Your task to perform on an android device: Go to CNN.com Image 0: 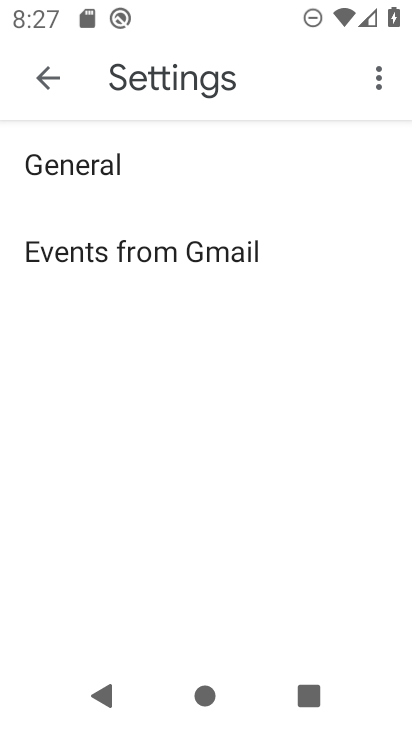
Step 0: press home button
Your task to perform on an android device: Go to CNN.com Image 1: 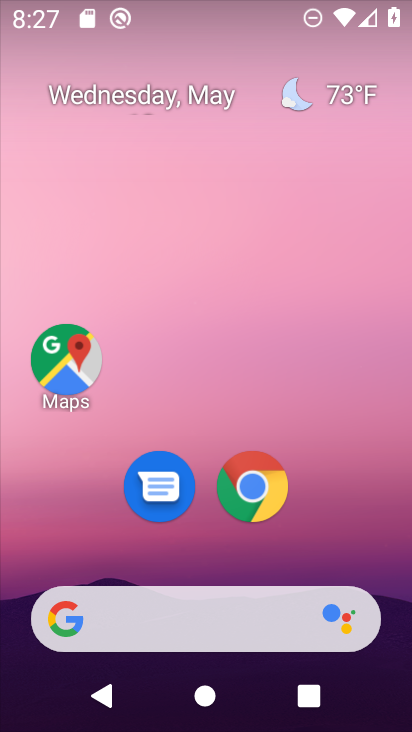
Step 1: click (255, 489)
Your task to perform on an android device: Go to CNN.com Image 2: 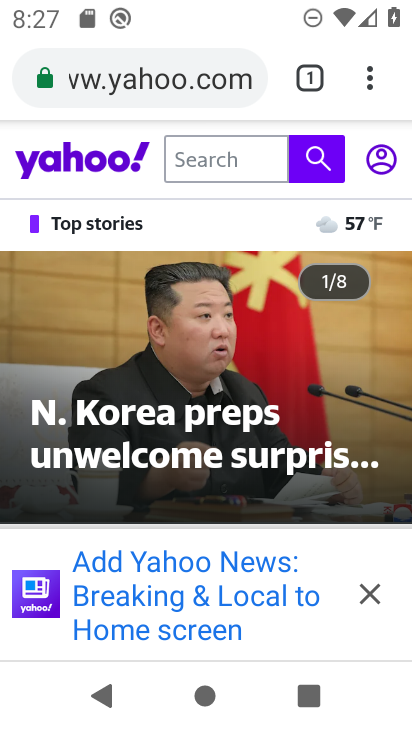
Step 2: click (160, 75)
Your task to perform on an android device: Go to CNN.com Image 3: 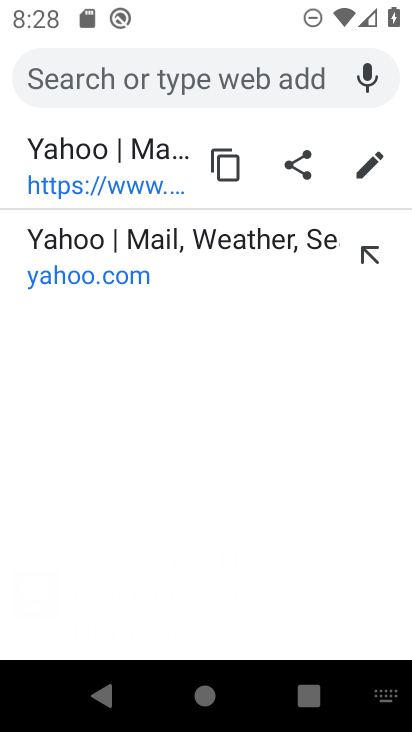
Step 3: type "cnn.com"
Your task to perform on an android device: Go to CNN.com Image 4: 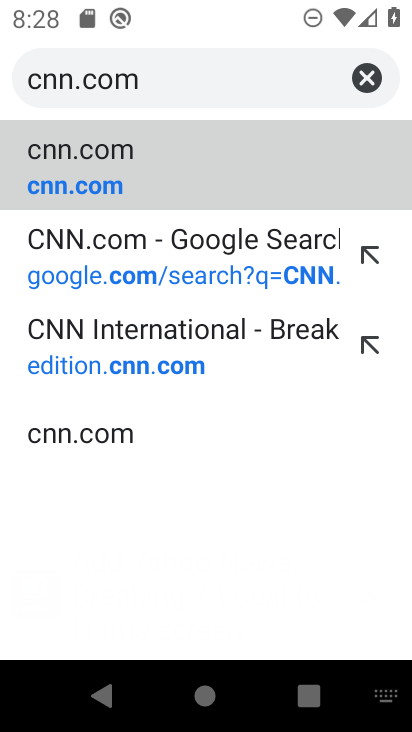
Step 4: click (66, 162)
Your task to perform on an android device: Go to CNN.com Image 5: 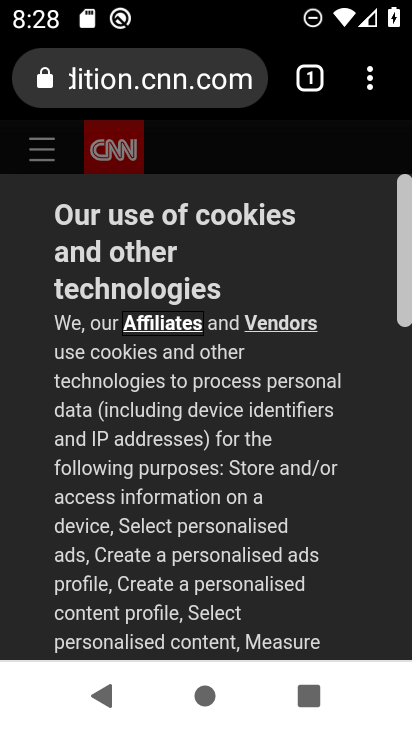
Step 5: task complete